Your task to perform on an android device: turn off improve location accuracy Image 0: 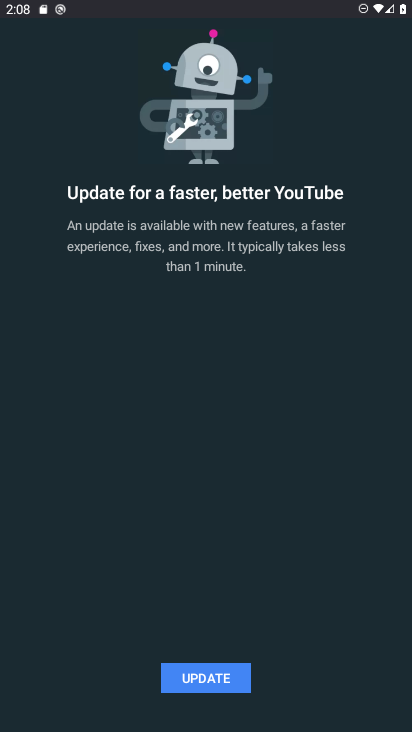
Step 0: press home button
Your task to perform on an android device: turn off improve location accuracy Image 1: 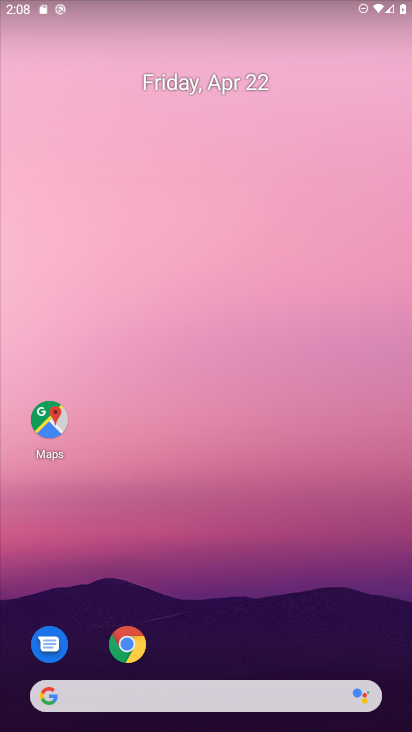
Step 1: drag from (268, 605) to (249, 18)
Your task to perform on an android device: turn off improve location accuracy Image 2: 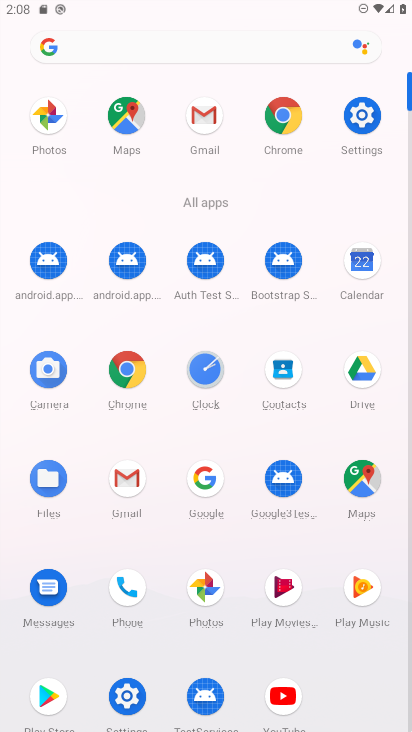
Step 2: click (360, 112)
Your task to perform on an android device: turn off improve location accuracy Image 3: 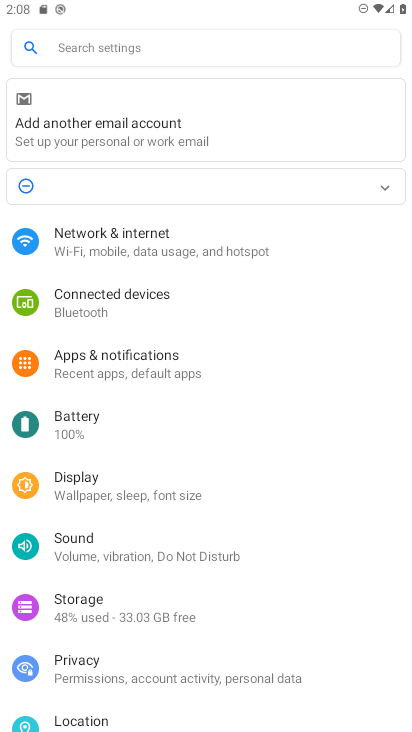
Step 3: drag from (236, 470) to (251, 117)
Your task to perform on an android device: turn off improve location accuracy Image 4: 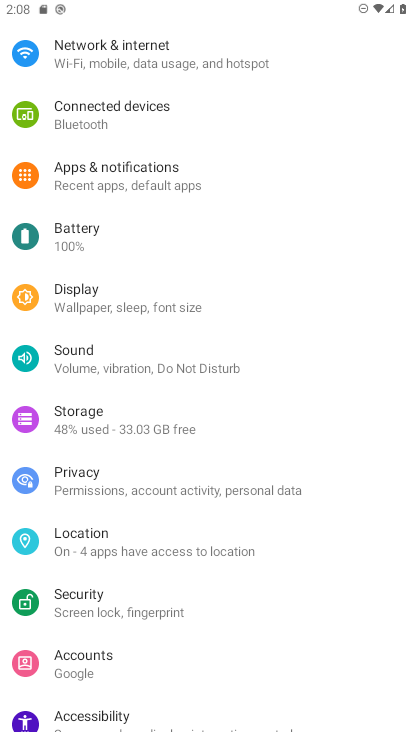
Step 4: click (109, 544)
Your task to perform on an android device: turn off improve location accuracy Image 5: 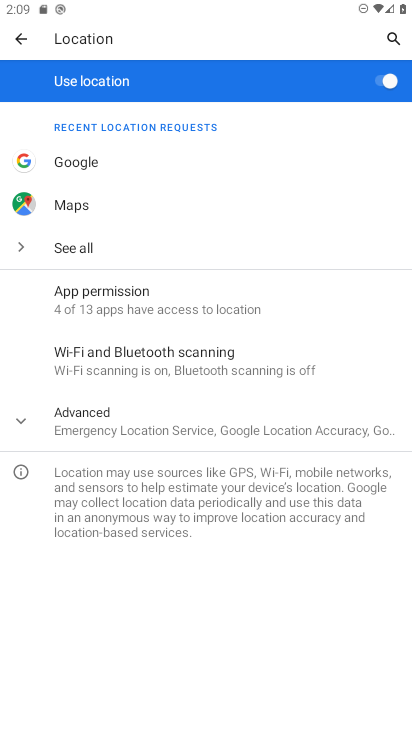
Step 5: click (141, 449)
Your task to perform on an android device: turn off improve location accuracy Image 6: 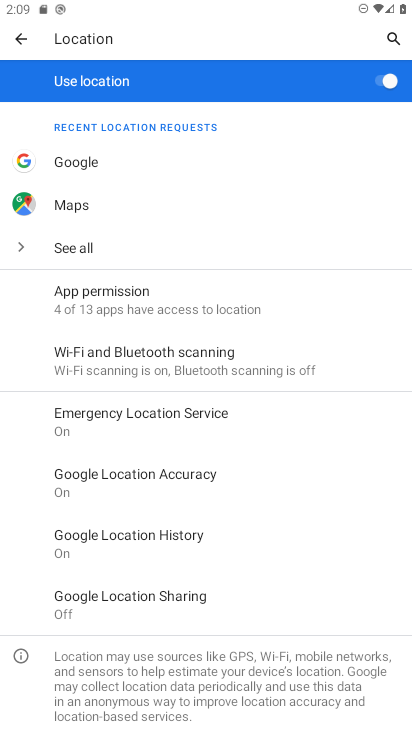
Step 6: click (174, 475)
Your task to perform on an android device: turn off improve location accuracy Image 7: 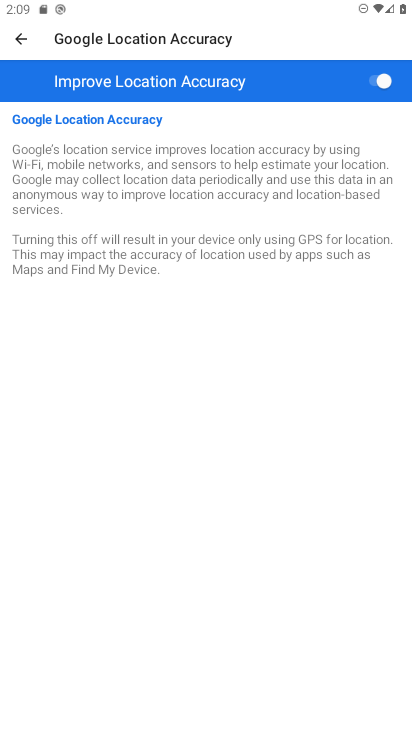
Step 7: click (369, 87)
Your task to perform on an android device: turn off improve location accuracy Image 8: 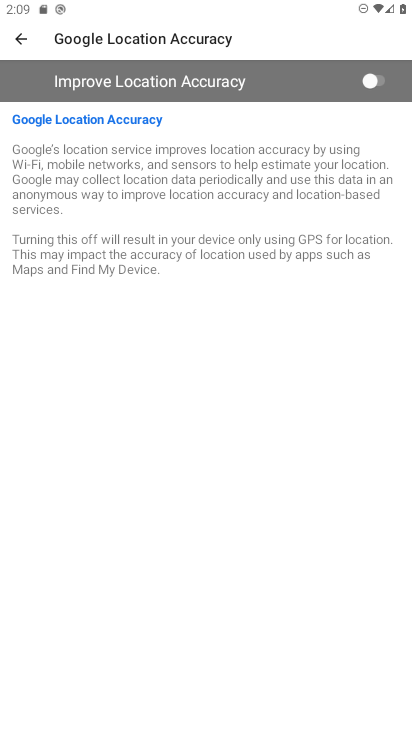
Step 8: task complete